Your task to perform on an android device: open app "DuckDuckGo Privacy Browser" (install if not already installed) Image 0: 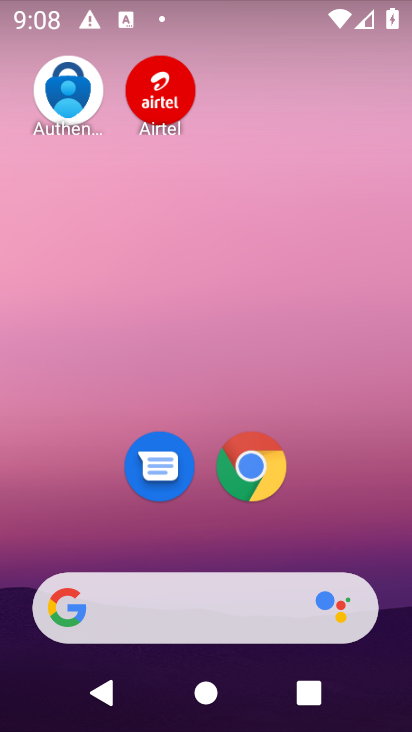
Step 0: drag from (79, 296) to (88, 1)
Your task to perform on an android device: open app "DuckDuckGo Privacy Browser" (install if not already installed) Image 1: 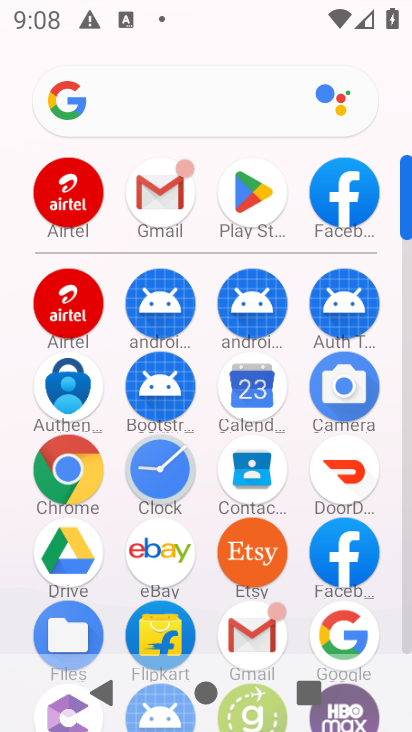
Step 1: click (250, 196)
Your task to perform on an android device: open app "DuckDuckGo Privacy Browser" (install if not already installed) Image 2: 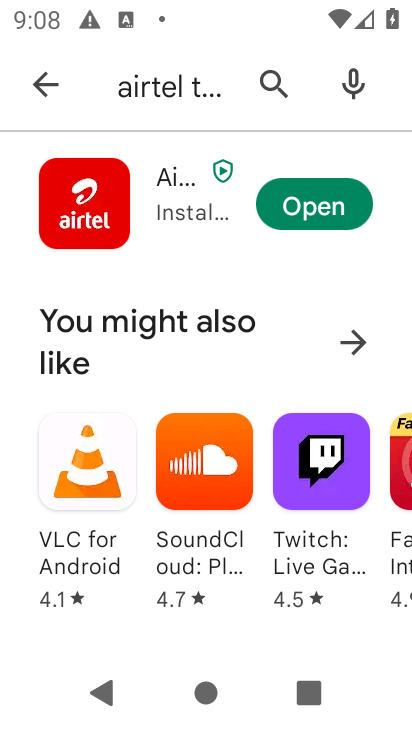
Step 2: click (263, 76)
Your task to perform on an android device: open app "DuckDuckGo Privacy Browser" (install if not already installed) Image 3: 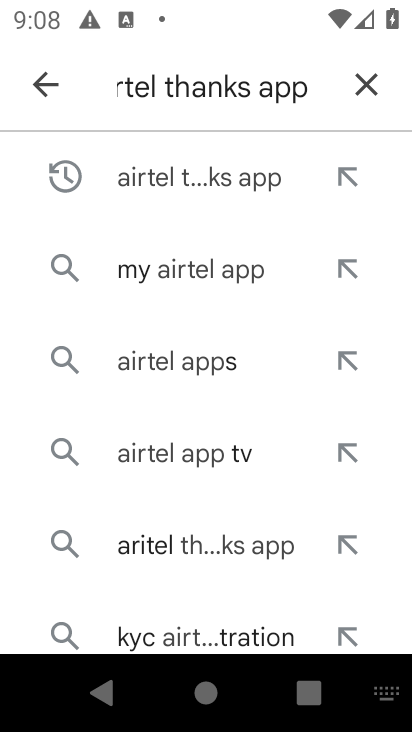
Step 3: click (345, 79)
Your task to perform on an android device: open app "DuckDuckGo Privacy Browser" (install if not already installed) Image 4: 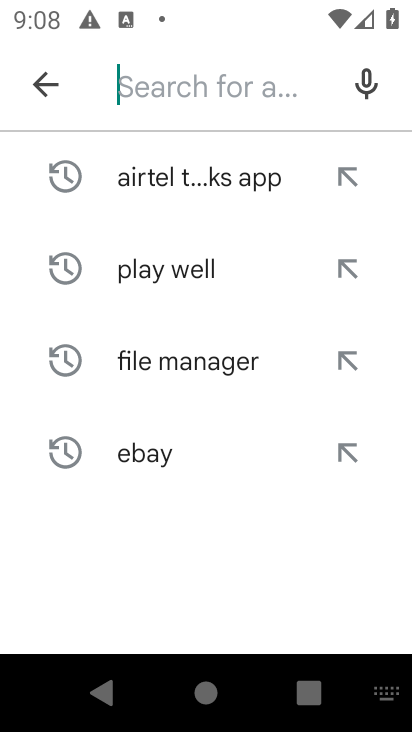
Step 4: click (190, 82)
Your task to perform on an android device: open app "DuckDuckGo Privacy Browser" (install if not already installed) Image 5: 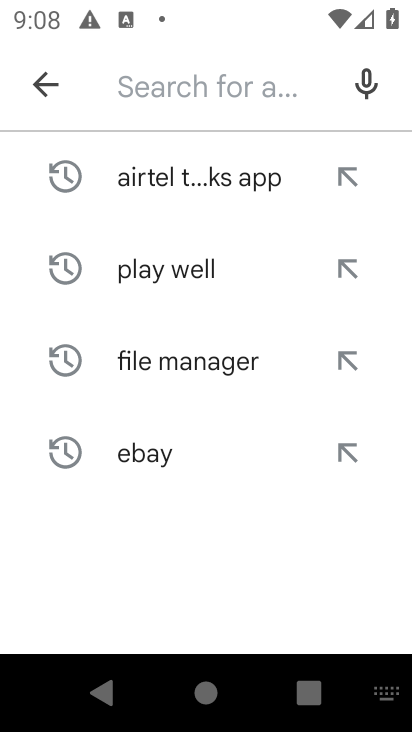
Step 5: type "DuckDuckGo Privacy Browser"
Your task to perform on an android device: open app "DuckDuckGo Privacy Browser" (install if not already installed) Image 6: 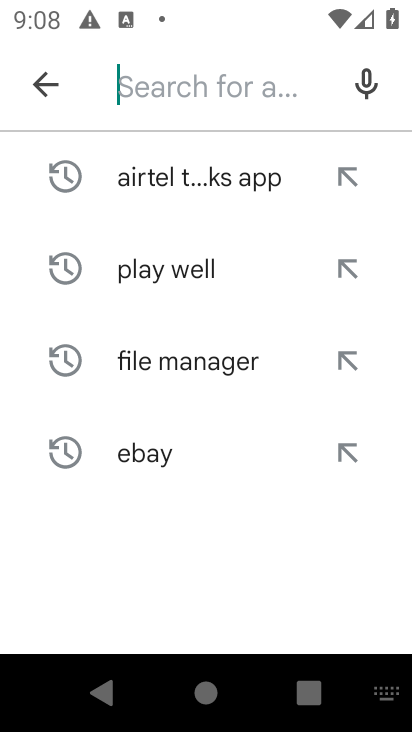
Step 6: click (134, 566)
Your task to perform on an android device: open app "DuckDuckGo Privacy Browser" (install if not already installed) Image 7: 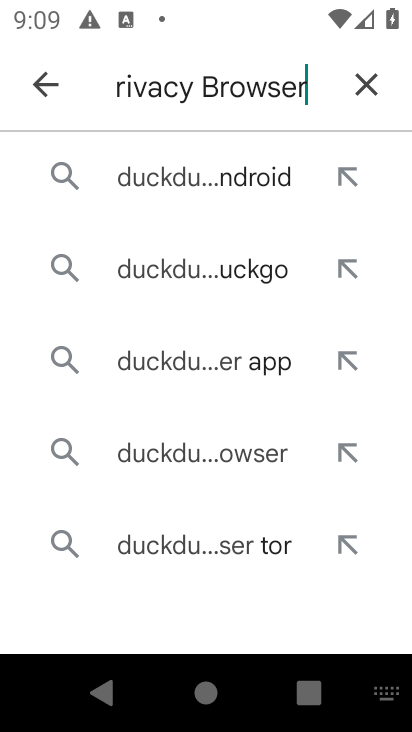
Step 7: click (167, 171)
Your task to perform on an android device: open app "DuckDuckGo Privacy Browser" (install if not already installed) Image 8: 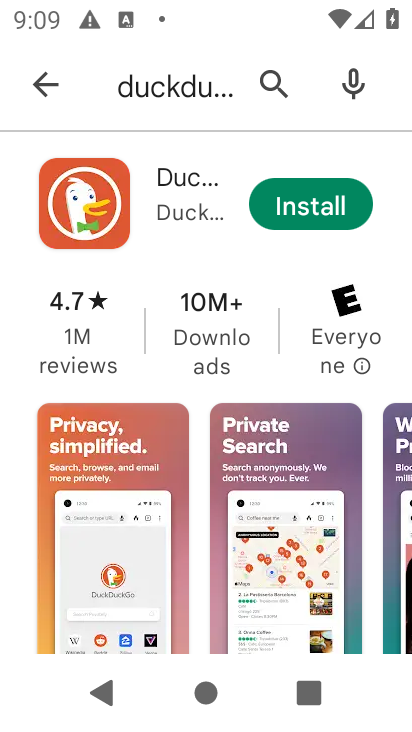
Step 8: click (298, 208)
Your task to perform on an android device: open app "DuckDuckGo Privacy Browser" (install if not already installed) Image 9: 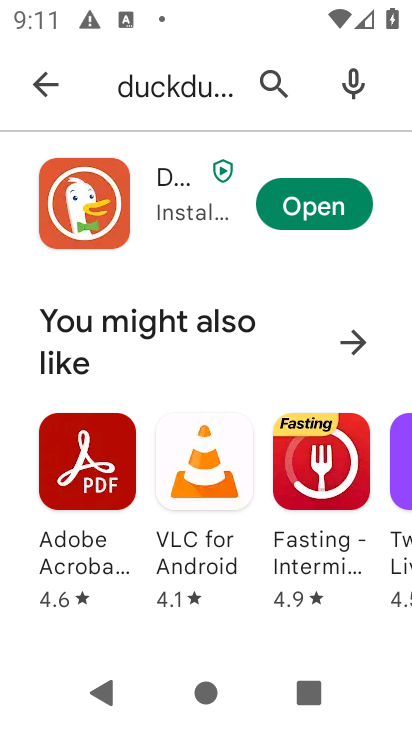
Step 9: click (335, 203)
Your task to perform on an android device: open app "DuckDuckGo Privacy Browser" (install if not already installed) Image 10: 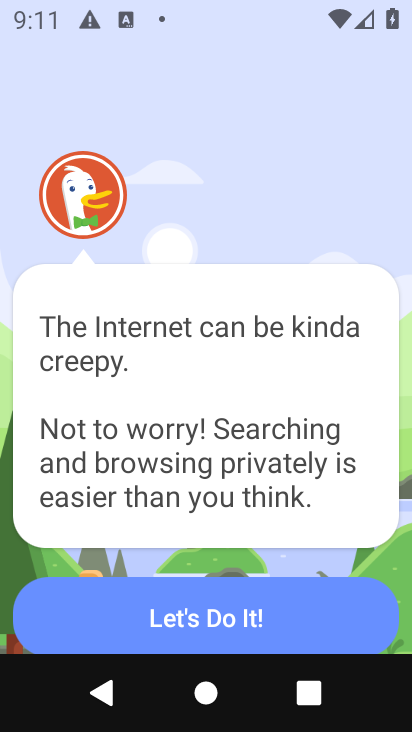
Step 10: click (233, 615)
Your task to perform on an android device: open app "DuckDuckGo Privacy Browser" (install if not already installed) Image 11: 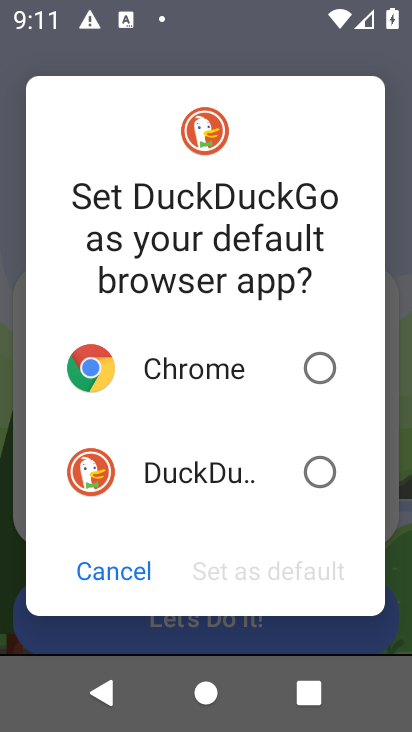
Step 11: task complete